Your task to perform on an android device: move an email to a new category in the gmail app Image 0: 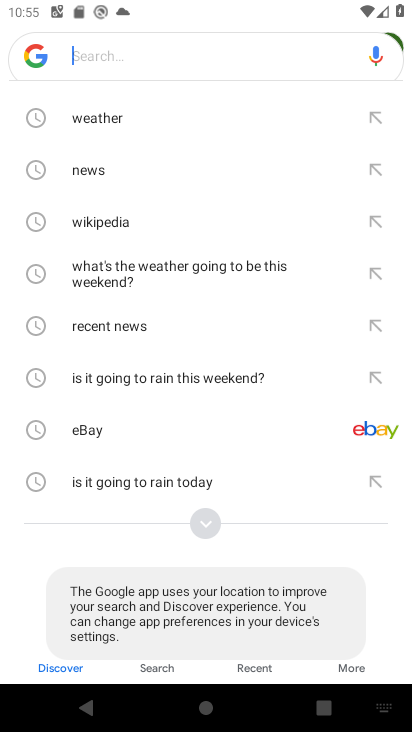
Step 0: press home button
Your task to perform on an android device: move an email to a new category in the gmail app Image 1: 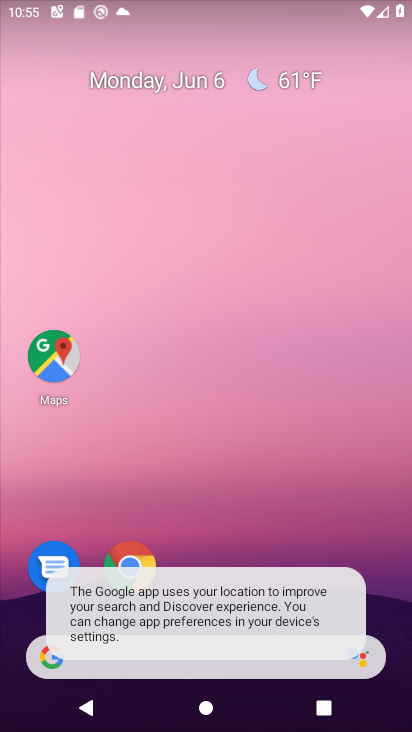
Step 1: drag from (242, 718) to (206, 94)
Your task to perform on an android device: move an email to a new category in the gmail app Image 2: 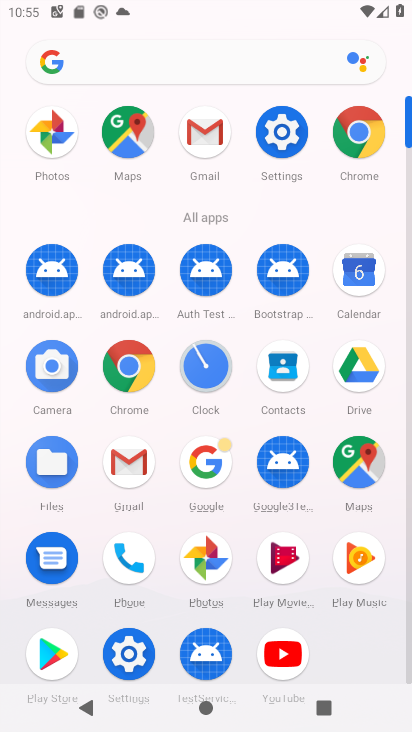
Step 2: click (136, 464)
Your task to perform on an android device: move an email to a new category in the gmail app Image 3: 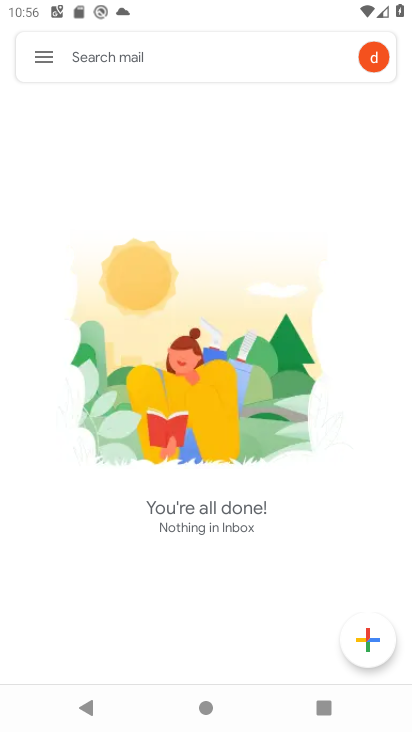
Step 3: task complete